Your task to perform on an android device: turn off location Image 0: 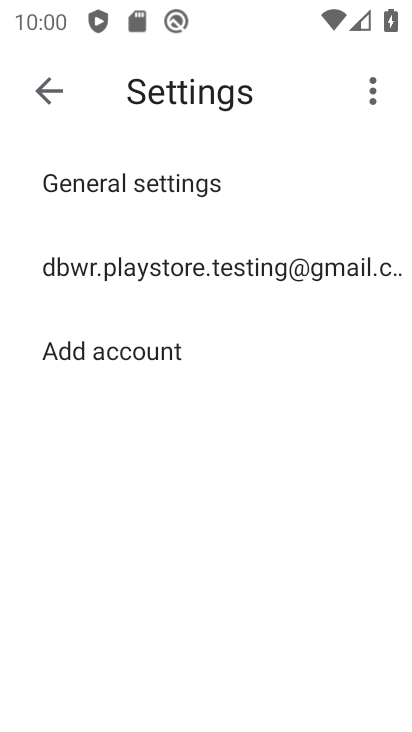
Step 0: click (48, 90)
Your task to perform on an android device: turn off location Image 1: 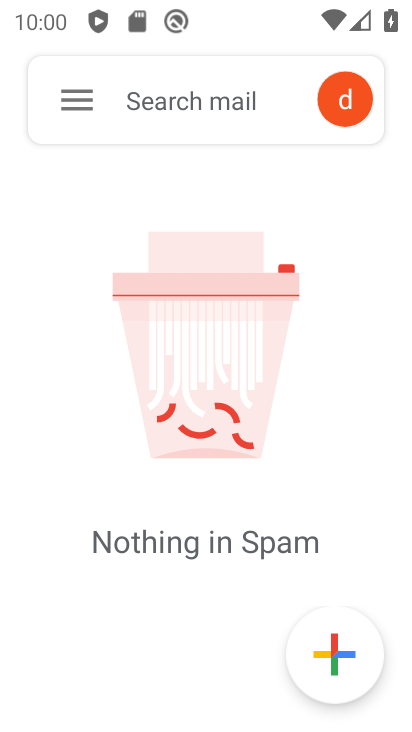
Step 1: press home button
Your task to perform on an android device: turn off location Image 2: 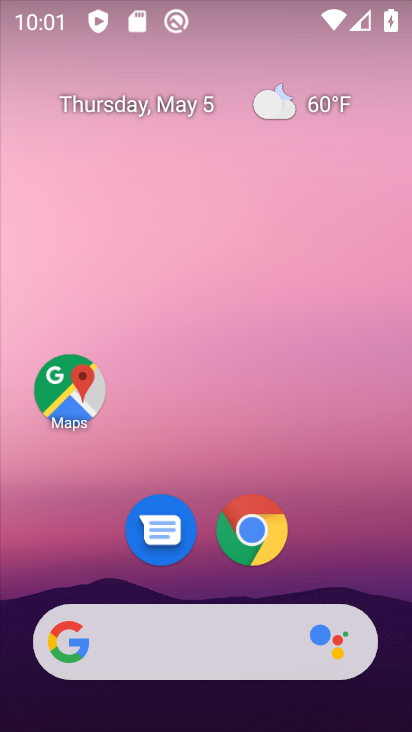
Step 2: drag from (207, 576) to (154, 224)
Your task to perform on an android device: turn off location Image 3: 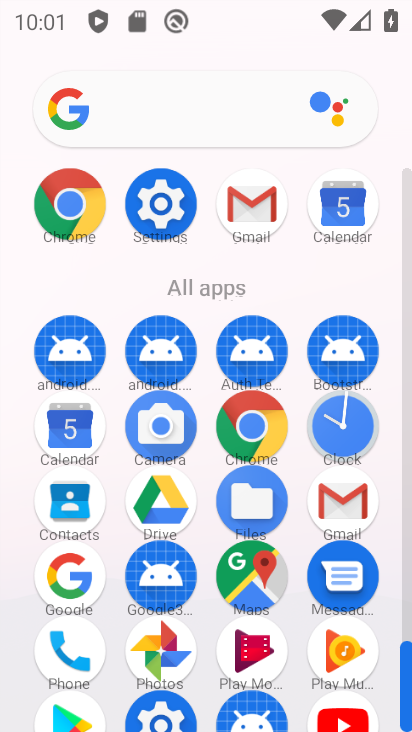
Step 3: click (156, 200)
Your task to perform on an android device: turn off location Image 4: 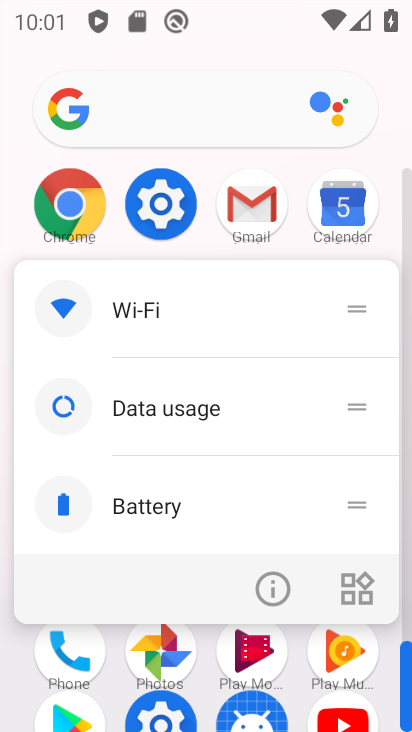
Step 4: click (157, 201)
Your task to perform on an android device: turn off location Image 5: 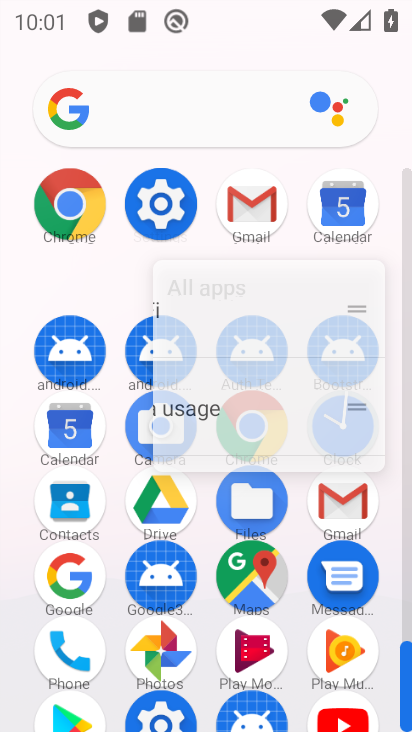
Step 5: click (157, 201)
Your task to perform on an android device: turn off location Image 6: 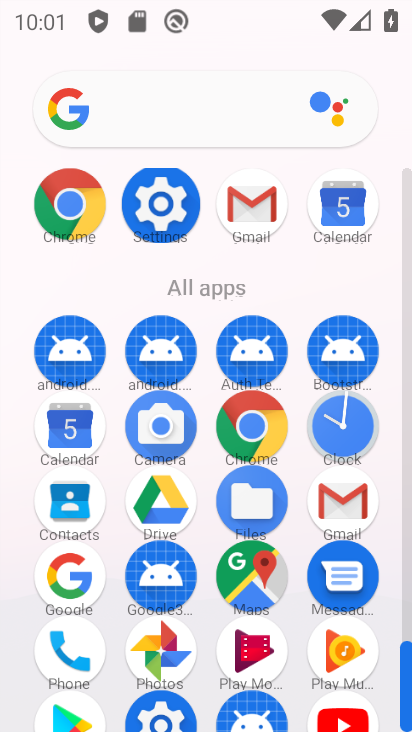
Step 6: click (158, 202)
Your task to perform on an android device: turn off location Image 7: 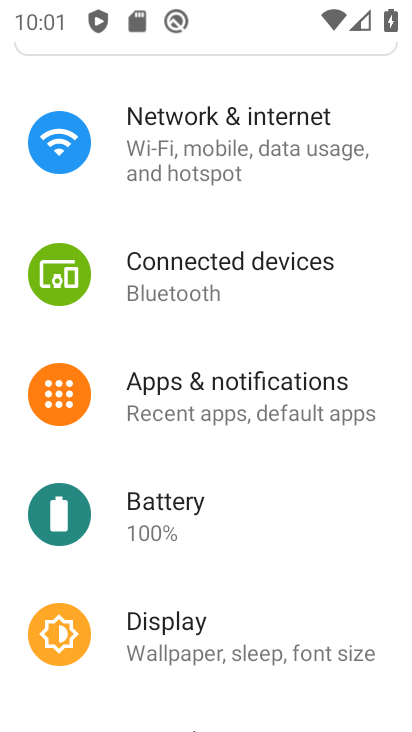
Step 7: drag from (227, 562) to (224, 77)
Your task to perform on an android device: turn off location Image 8: 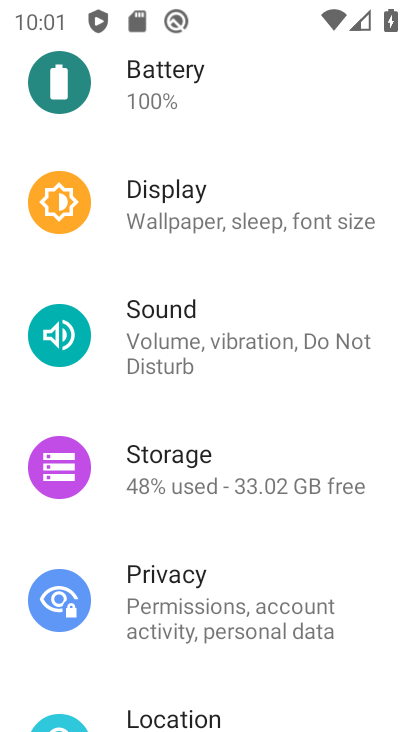
Step 8: drag from (243, 480) to (220, 191)
Your task to perform on an android device: turn off location Image 9: 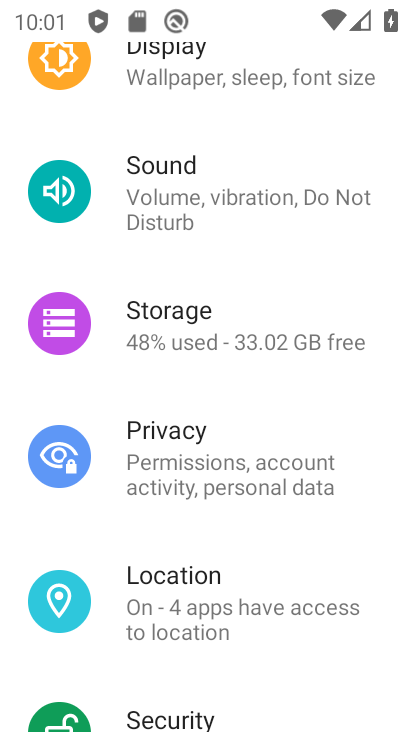
Step 9: click (190, 613)
Your task to perform on an android device: turn off location Image 10: 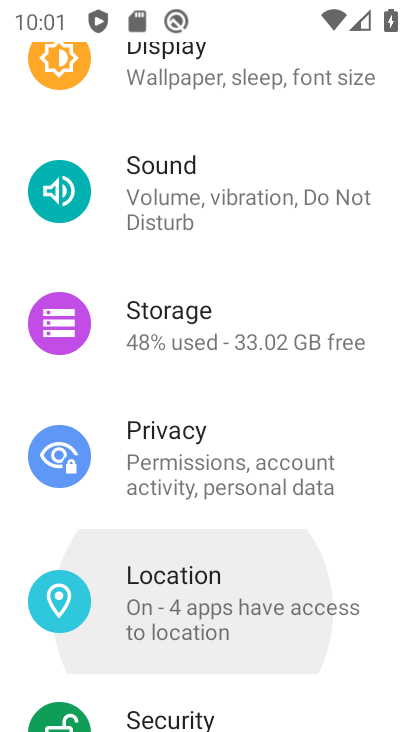
Step 10: click (189, 619)
Your task to perform on an android device: turn off location Image 11: 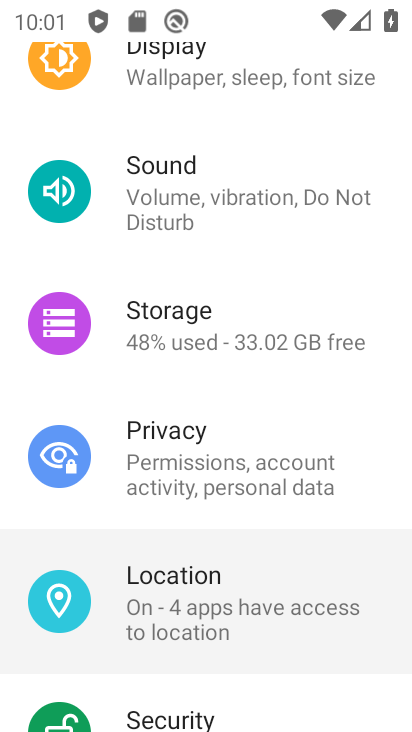
Step 11: click (188, 620)
Your task to perform on an android device: turn off location Image 12: 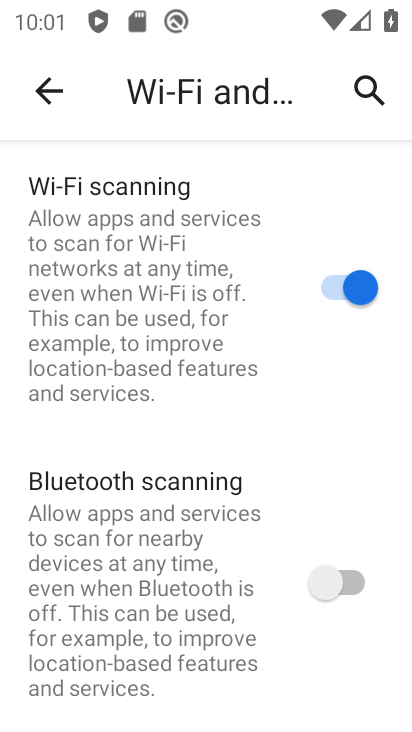
Step 12: click (43, 84)
Your task to perform on an android device: turn off location Image 13: 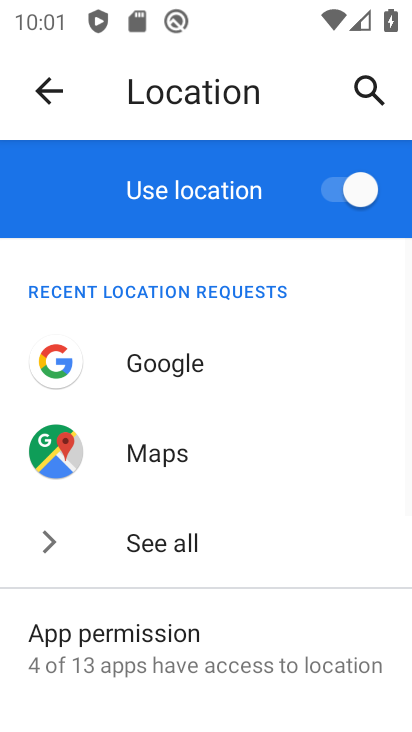
Step 13: drag from (226, 620) to (210, 124)
Your task to perform on an android device: turn off location Image 14: 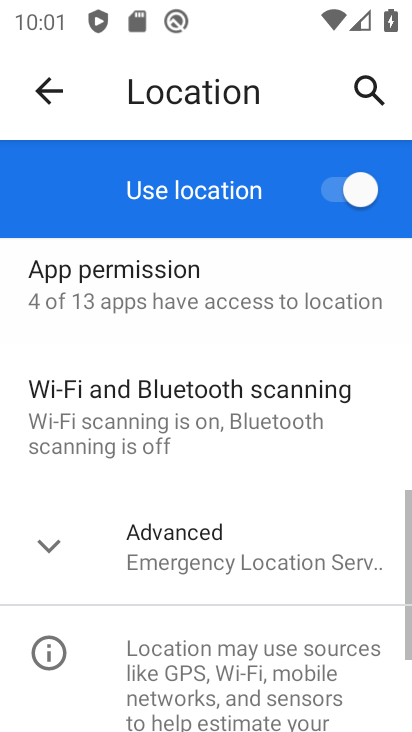
Step 14: drag from (271, 525) to (265, 159)
Your task to perform on an android device: turn off location Image 15: 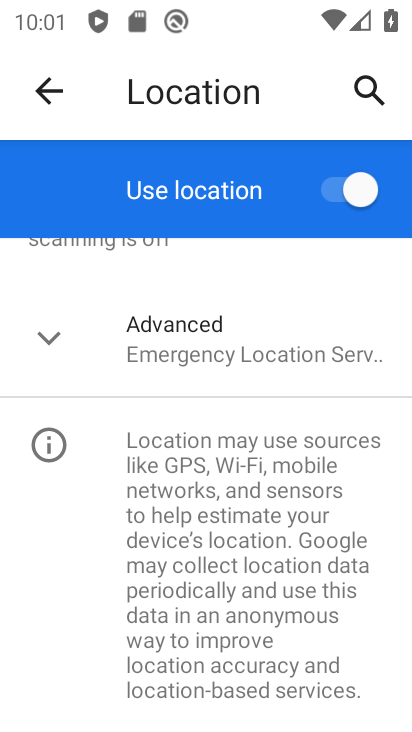
Step 15: click (191, 337)
Your task to perform on an android device: turn off location Image 16: 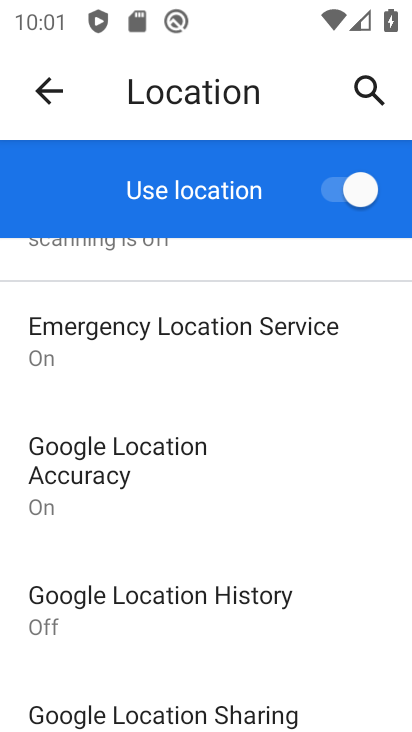
Step 16: click (347, 187)
Your task to perform on an android device: turn off location Image 17: 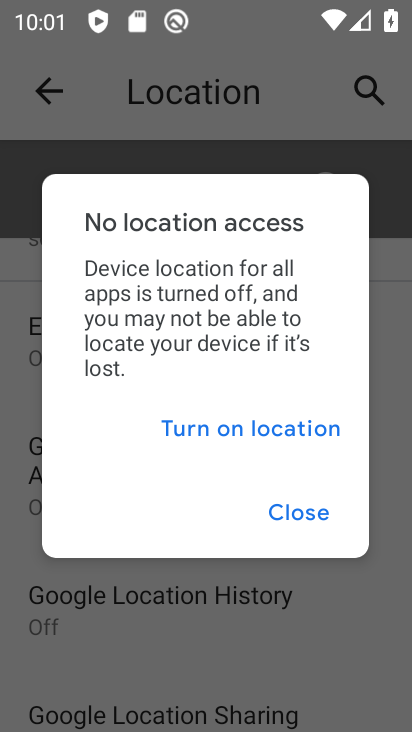
Step 17: click (305, 507)
Your task to perform on an android device: turn off location Image 18: 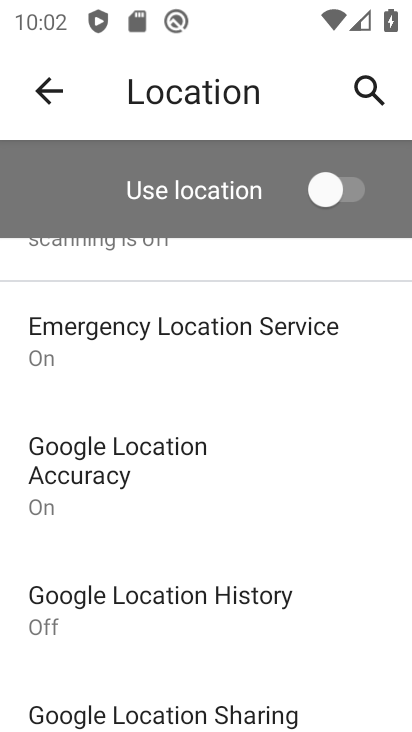
Step 18: task complete